Your task to perform on an android device: turn pop-ups off in chrome Image 0: 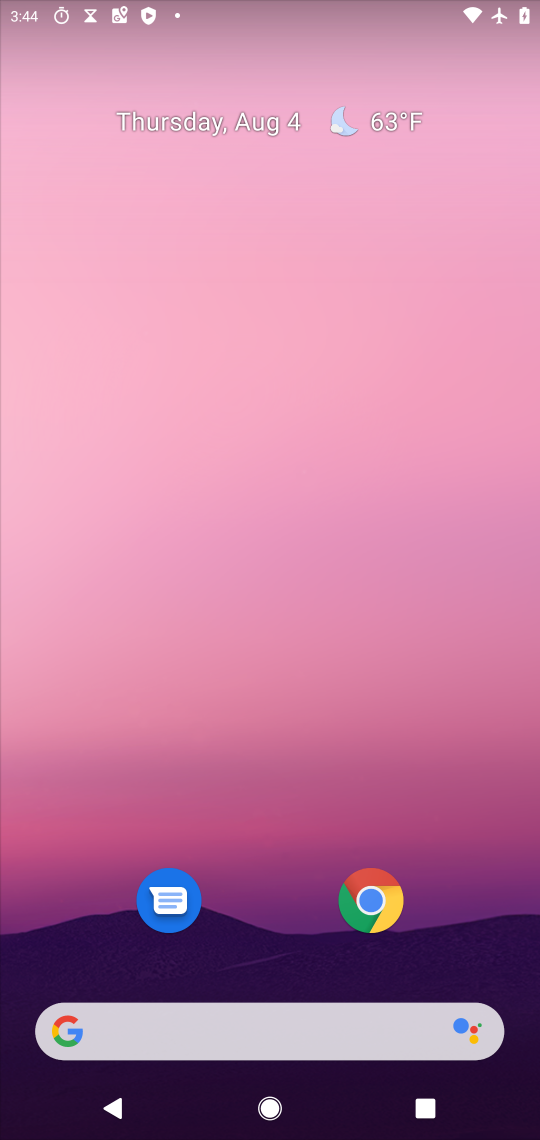
Step 0: click (370, 910)
Your task to perform on an android device: turn pop-ups off in chrome Image 1: 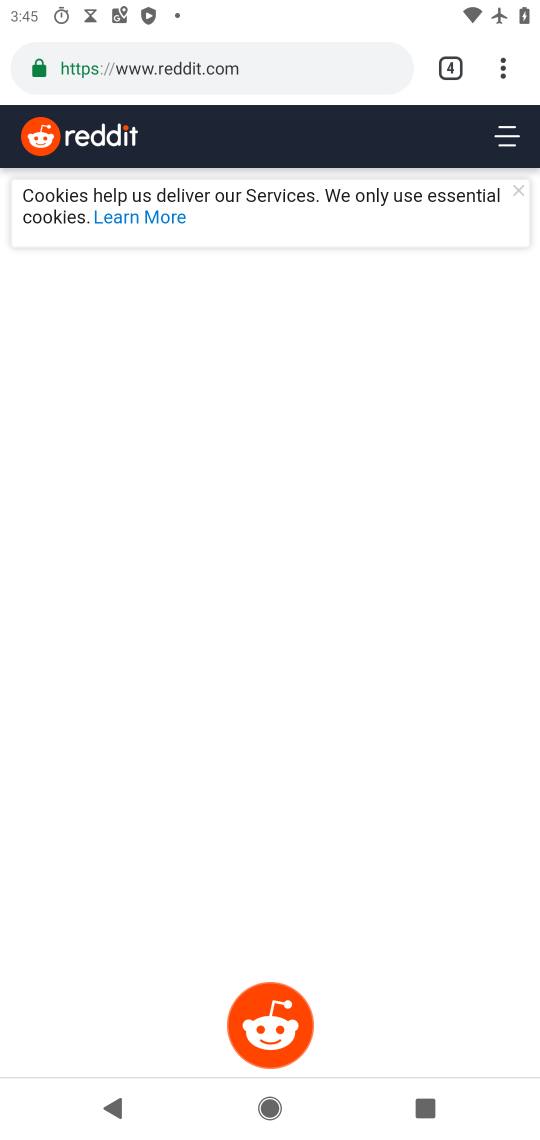
Step 1: click (501, 84)
Your task to perform on an android device: turn pop-ups off in chrome Image 2: 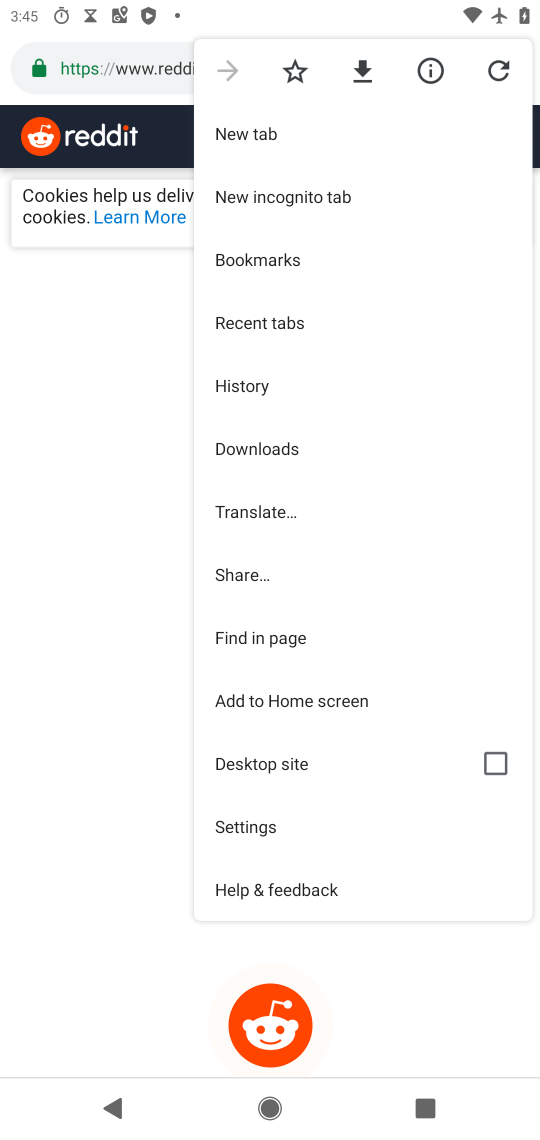
Step 2: click (237, 818)
Your task to perform on an android device: turn pop-ups off in chrome Image 3: 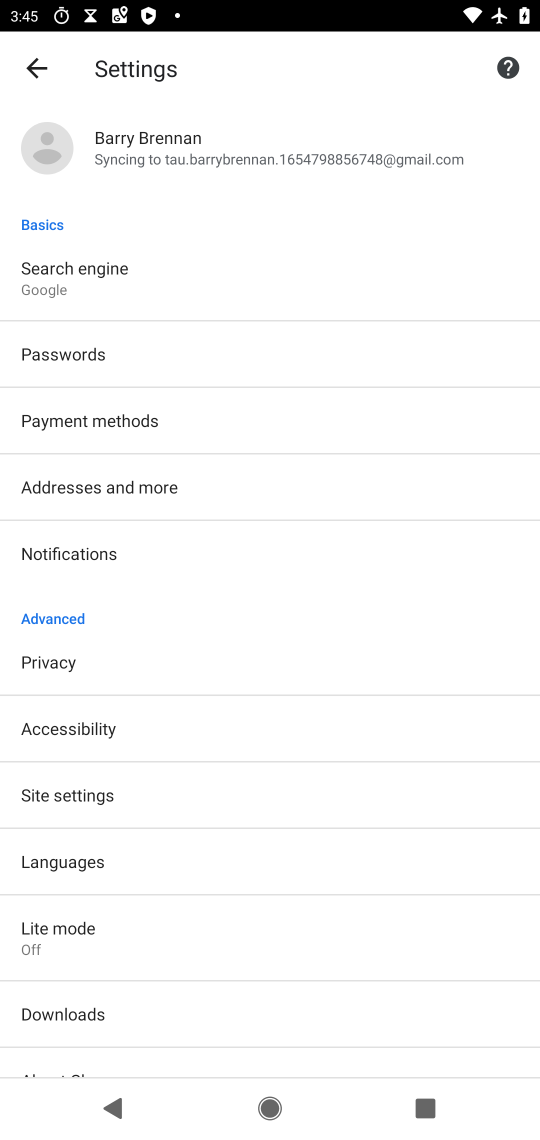
Step 3: click (222, 788)
Your task to perform on an android device: turn pop-ups off in chrome Image 4: 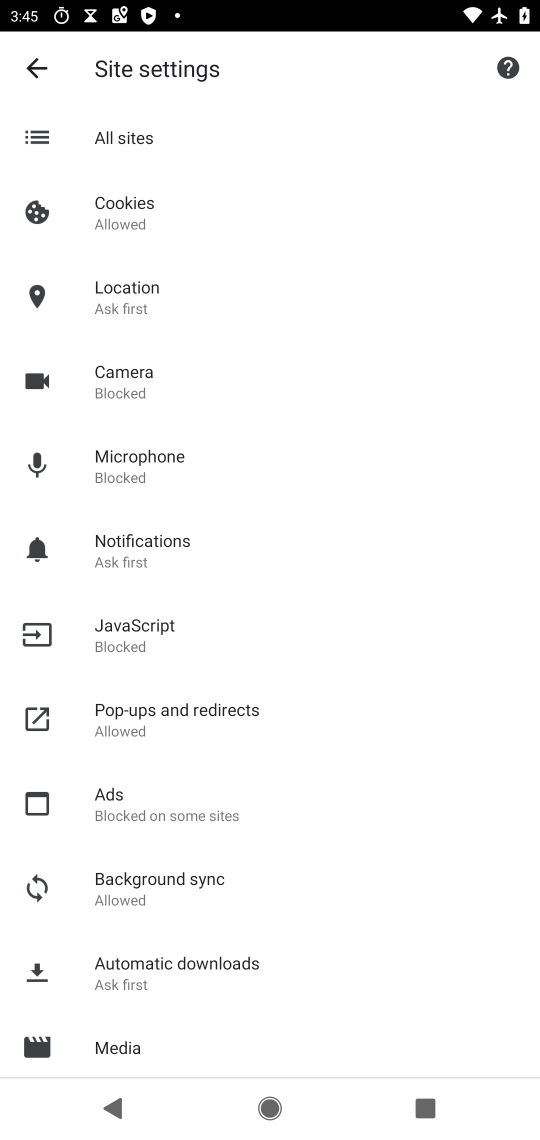
Step 4: click (224, 721)
Your task to perform on an android device: turn pop-ups off in chrome Image 5: 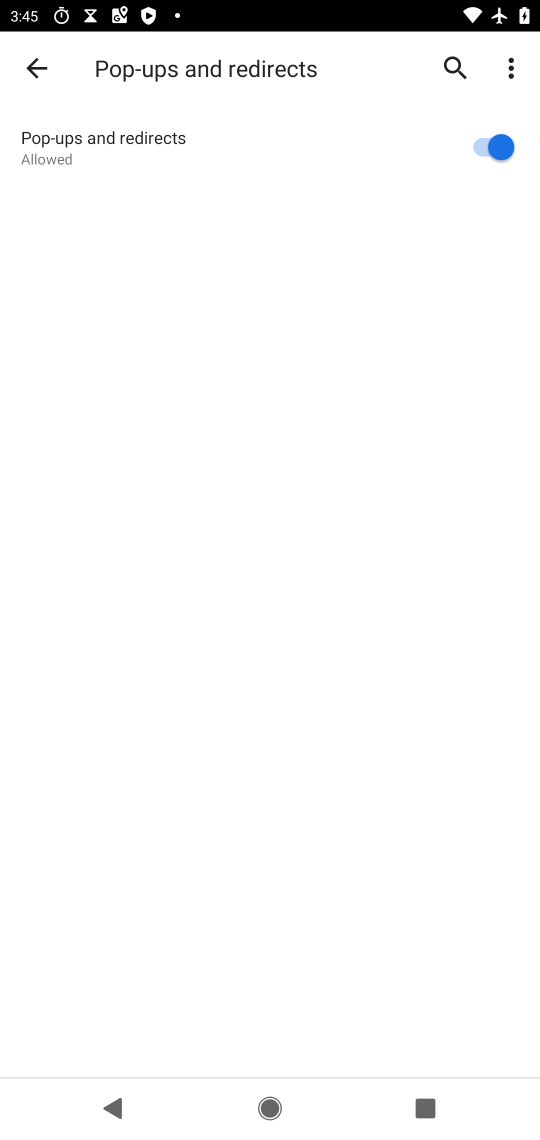
Step 5: click (505, 151)
Your task to perform on an android device: turn pop-ups off in chrome Image 6: 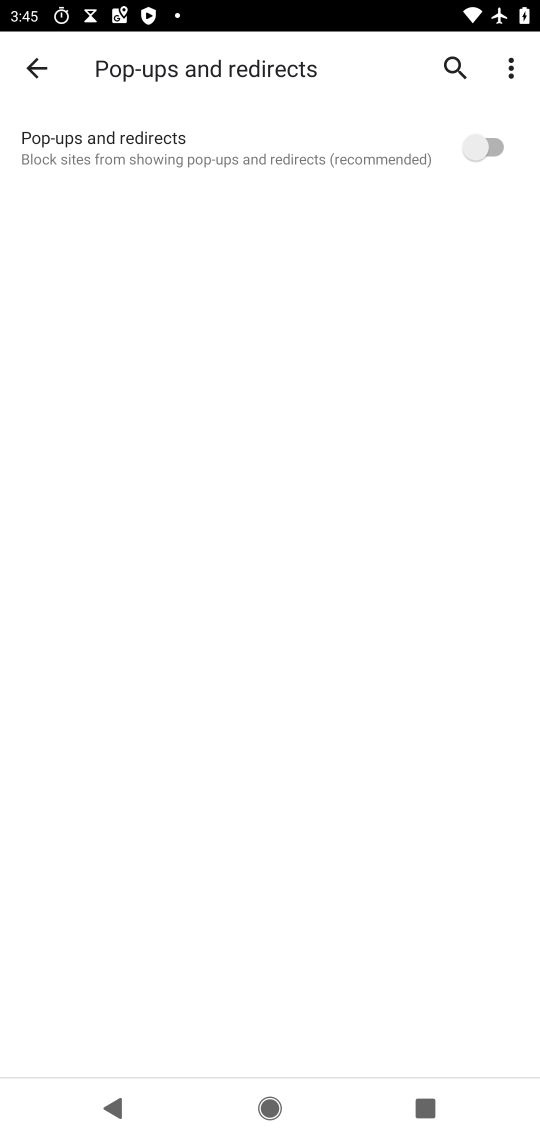
Step 6: task complete